Your task to perform on an android device: change the clock display to digital Image 0: 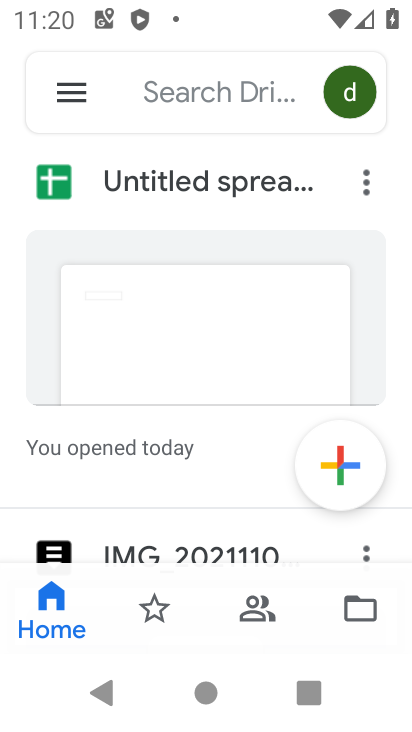
Step 0: press home button
Your task to perform on an android device: change the clock display to digital Image 1: 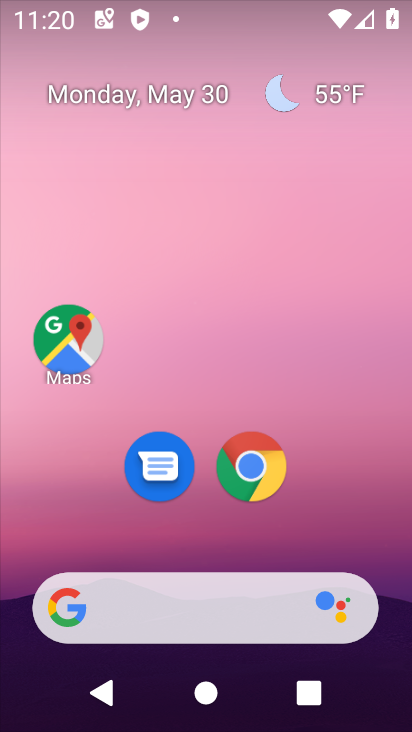
Step 1: drag from (314, 571) to (346, 0)
Your task to perform on an android device: change the clock display to digital Image 2: 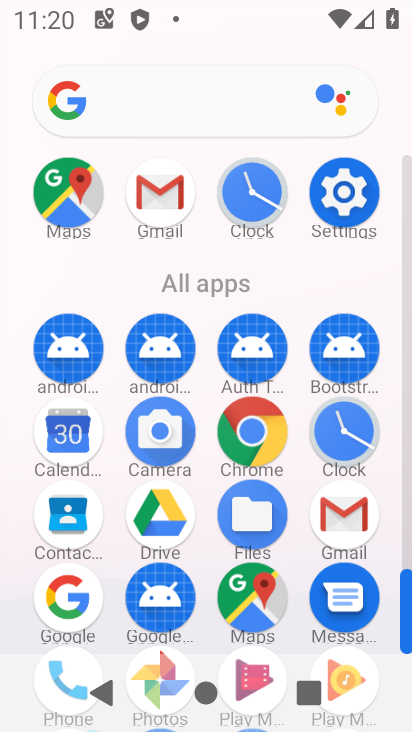
Step 2: click (357, 420)
Your task to perform on an android device: change the clock display to digital Image 3: 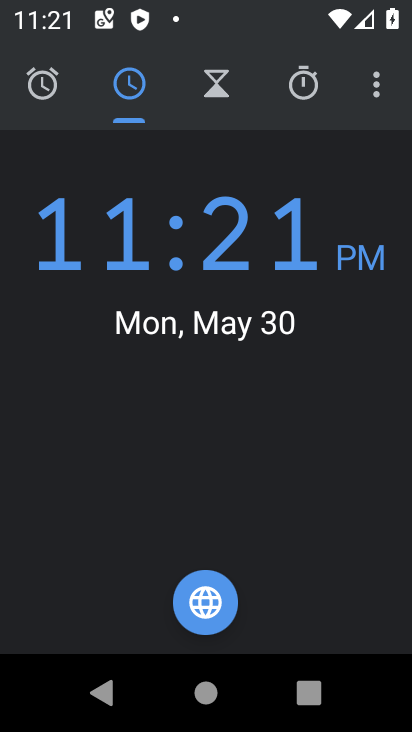
Step 3: click (383, 87)
Your task to perform on an android device: change the clock display to digital Image 4: 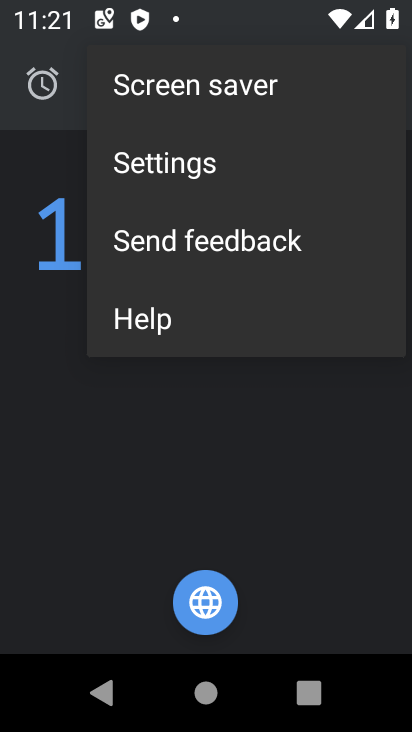
Step 4: click (261, 168)
Your task to perform on an android device: change the clock display to digital Image 5: 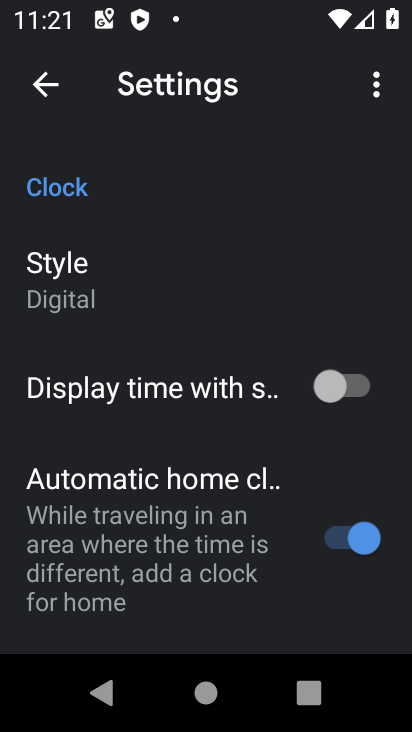
Step 5: task complete